Your task to perform on an android device: Open the Play Movies app and select the watchlist tab. Image 0: 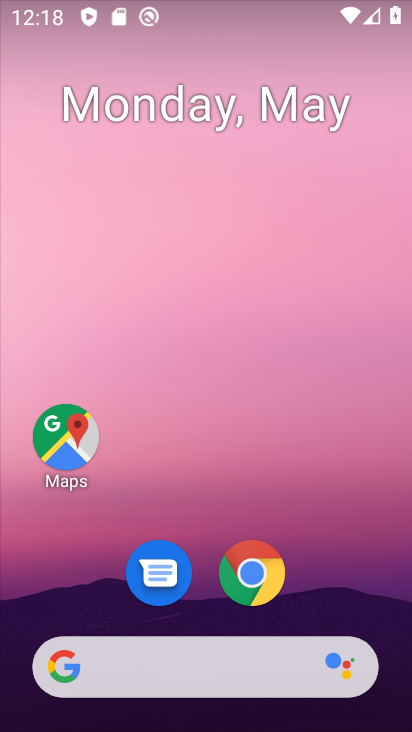
Step 0: drag from (209, 627) to (255, 111)
Your task to perform on an android device: Open the Play Movies app and select the watchlist tab. Image 1: 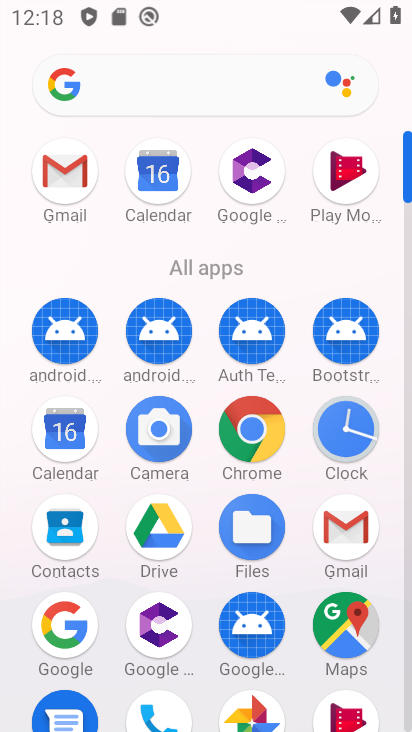
Step 1: click (356, 181)
Your task to perform on an android device: Open the Play Movies app and select the watchlist tab. Image 2: 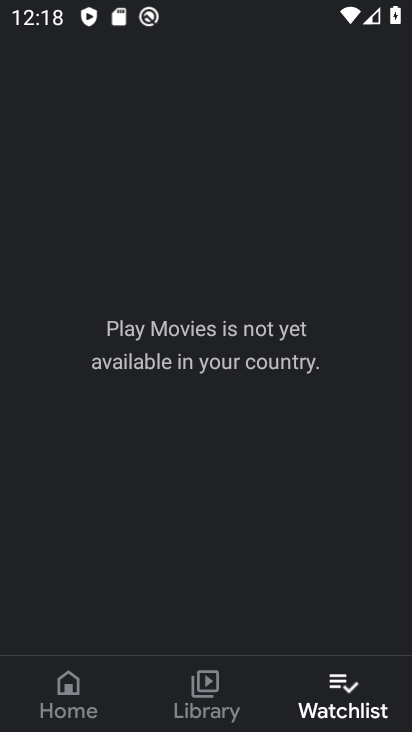
Step 2: task complete